Your task to perform on an android device: Open Google Chrome and click the shortcut for Amazon.com Image 0: 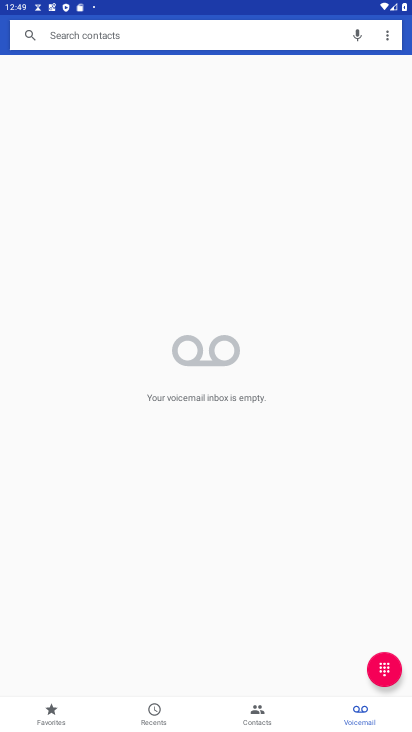
Step 0: press home button
Your task to perform on an android device: Open Google Chrome and click the shortcut for Amazon.com Image 1: 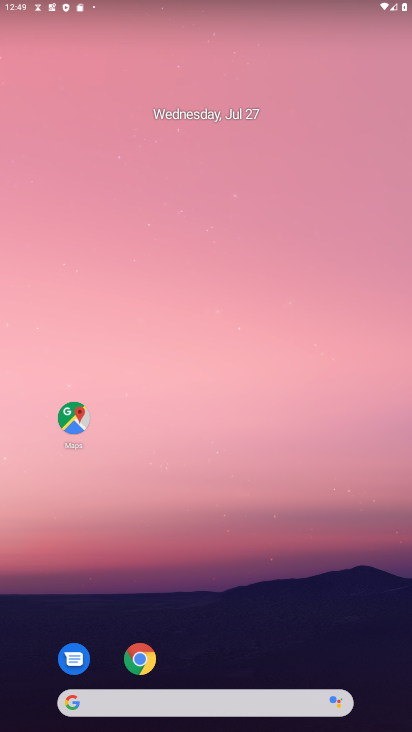
Step 1: click (132, 660)
Your task to perform on an android device: Open Google Chrome and click the shortcut for Amazon.com Image 2: 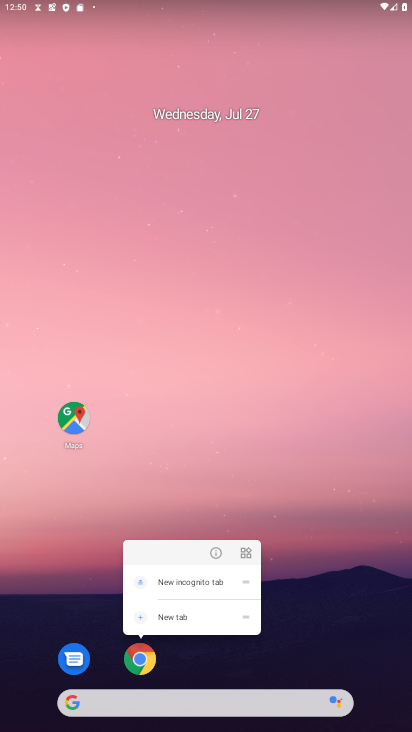
Step 2: click (139, 656)
Your task to perform on an android device: Open Google Chrome and click the shortcut for Amazon.com Image 3: 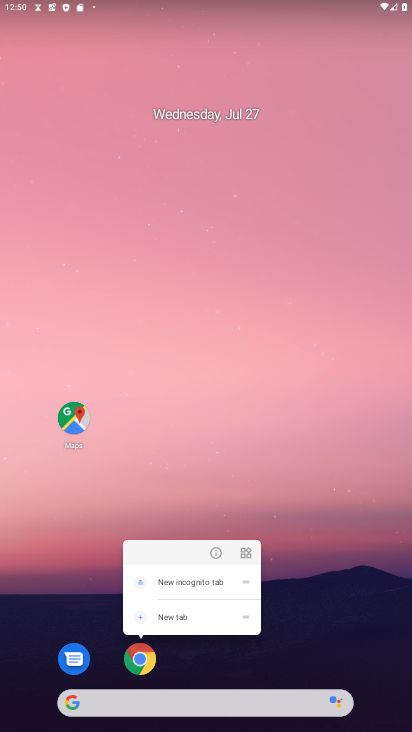
Step 3: click (142, 655)
Your task to perform on an android device: Open Google Chrome and click the shortcut for Amazon.com Image 4: 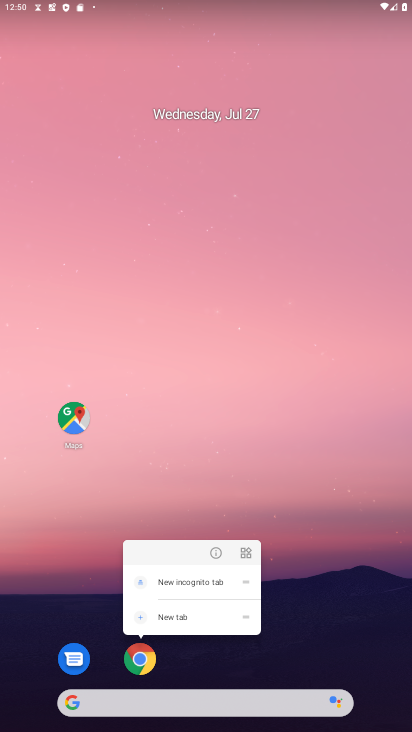
Step 4: click (139, 656)
Your task to perform on an android device: Open Google Chrome and click the shortcut for Amazon.com Image 5: 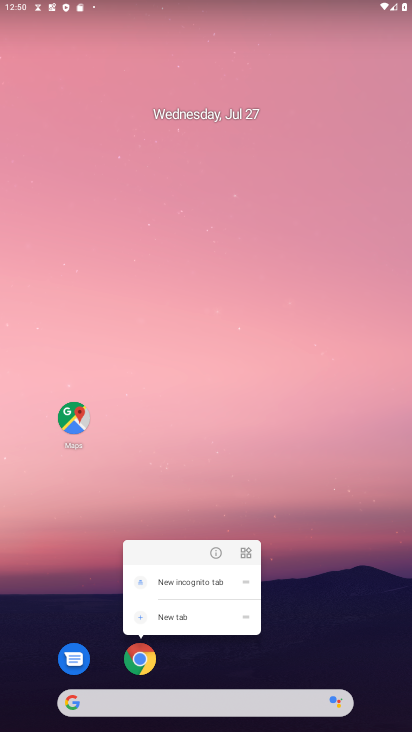
Step 5: click (134, 665)
Your task to perform on an android device: Open Google Chrome and click the shortcut for Amazon.com Image 6: 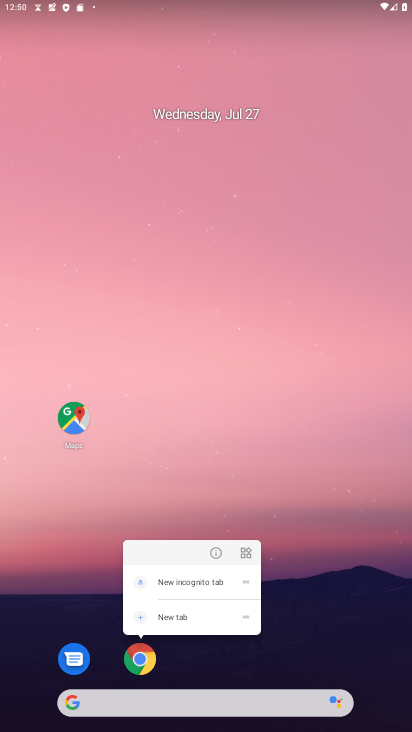
Step 6: click (321, 646)
Your task to perform on an android device: Open Google Chrome and click the shortcut for Amazon.com Image 7: 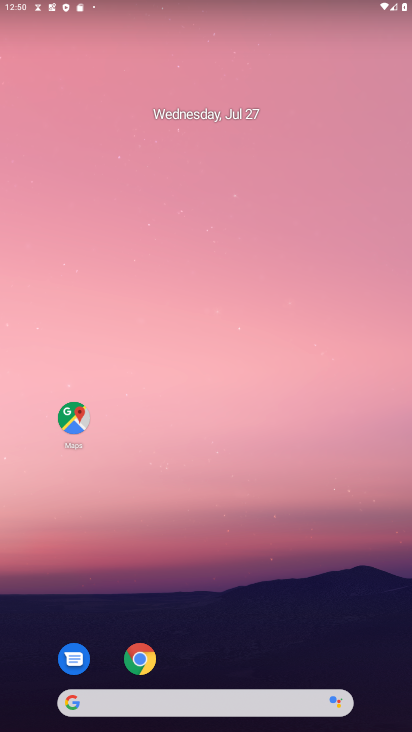
Step 7: drag from (324, 646) to (387, 151)
Your task to perform on an android device: Open Google Chrome and click the shortcut for Amazon.com Image 8: 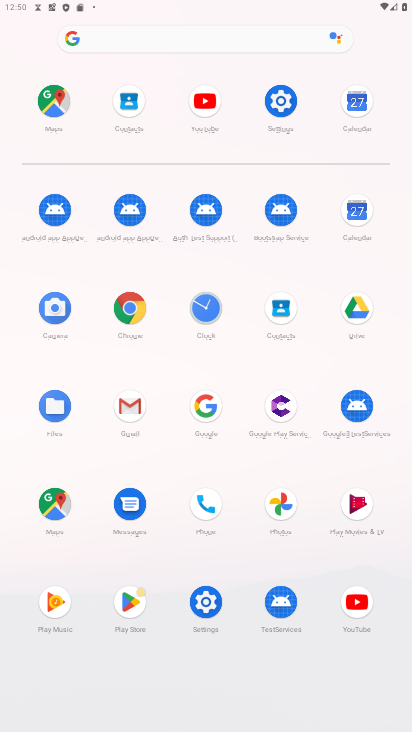
Step 8: click (127, 303)
Your task to perform on an android device: Open Google Chrome and click the shortcut for Amazon.com Image 9: 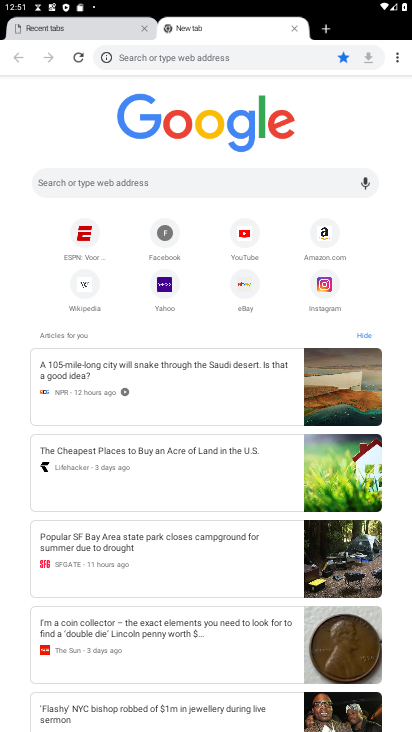
Step 9: click (325, 232)
Your task to perform on an android device: Open Google Chrome and click the shortcut for Amazon.com Image 10: 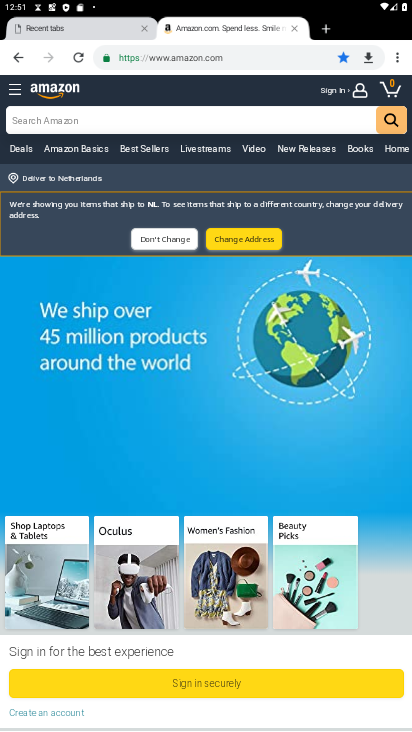
Step 10: task complete